Your task to perform on an android device: Do I have any events tomorrow? Image 0: 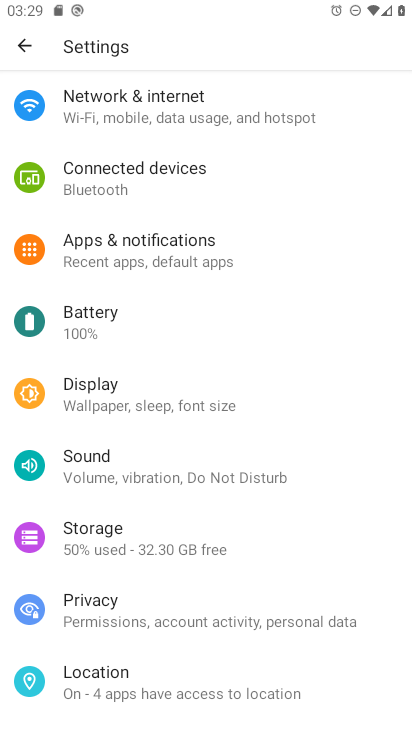
Step 0: press home button
Your task to perform on an android device: Do I have any events tomorrow? Image 1: 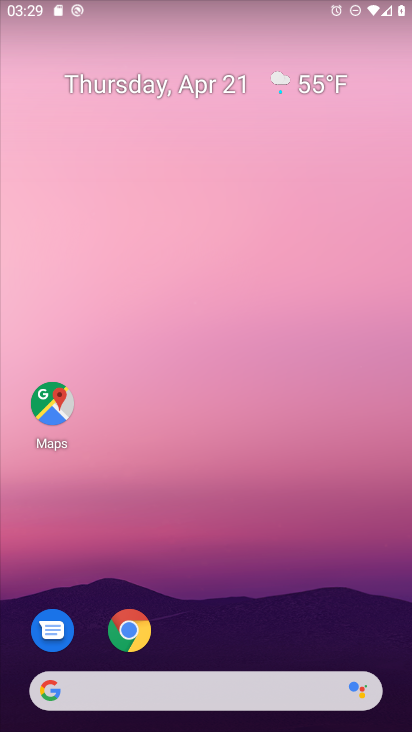
Step 1: drag from (292, 566) to (277, 105)
Your task to perform on an android device: Do I have any events tomorrow? Image 2: 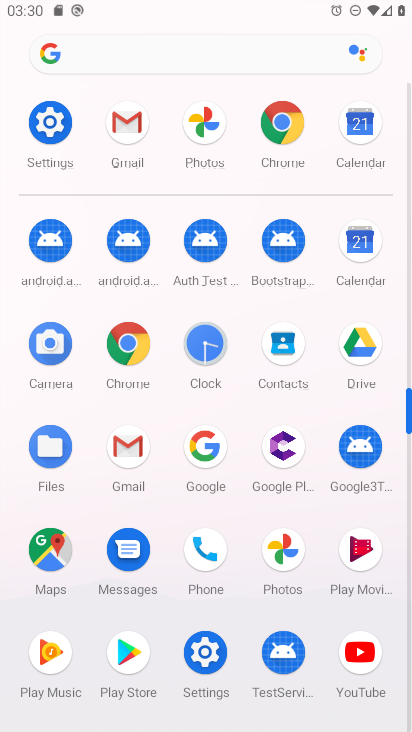
Step 2: click (357, 249)
Your task to perform on an android device: Do I have any events tomorrow? Image 3: 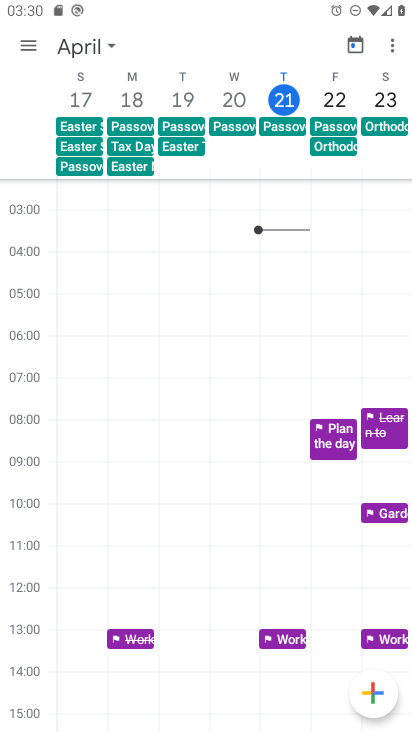
Step 3: task complete